Your task to perform on an android device: turn on data saver in the chrome app Image 0: 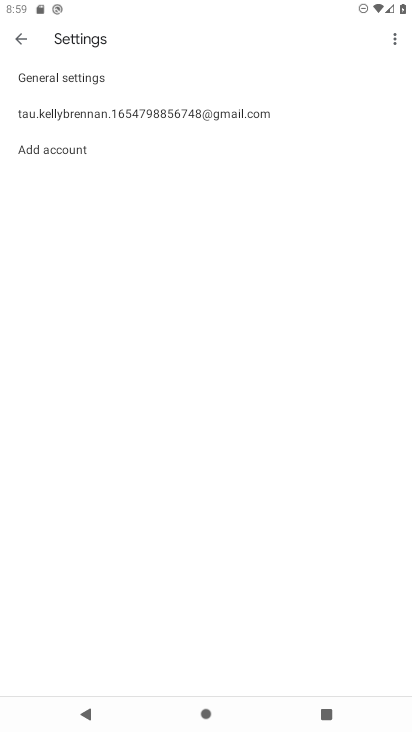
Step 0: press home button
Your task to perform on an android device: turn on data saver in the chrome app Image 1: 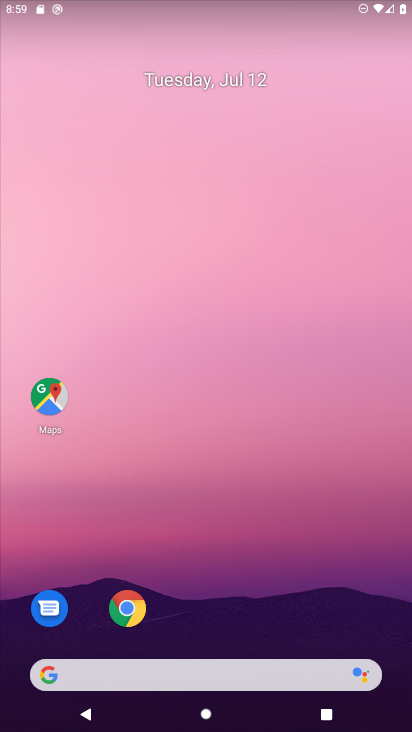
Step 1: click (133, 599)
Your task to perform on an android device: turn on data saver in the chrome app Image 2: 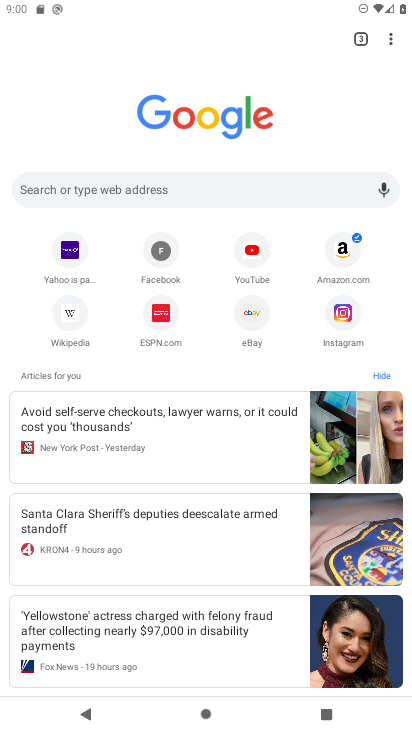
Step 2: click (398, 42)
Your task to perform on an android device: turn on data saver in the chrome app Image 3: 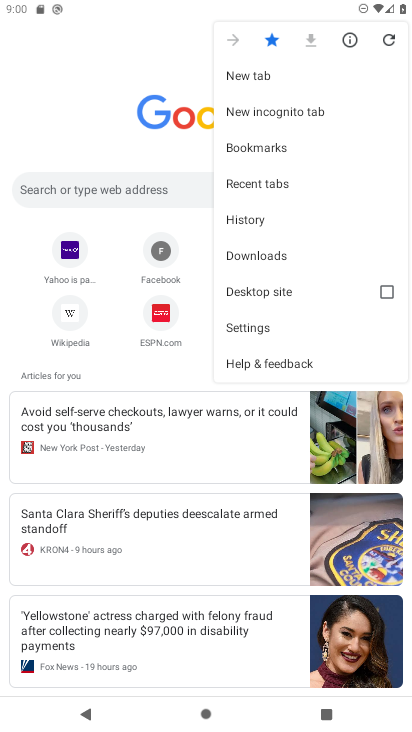
Step 3: click (270, 331)
Your task to perform on an android device: turn on data saver in the chrome app Image 4: 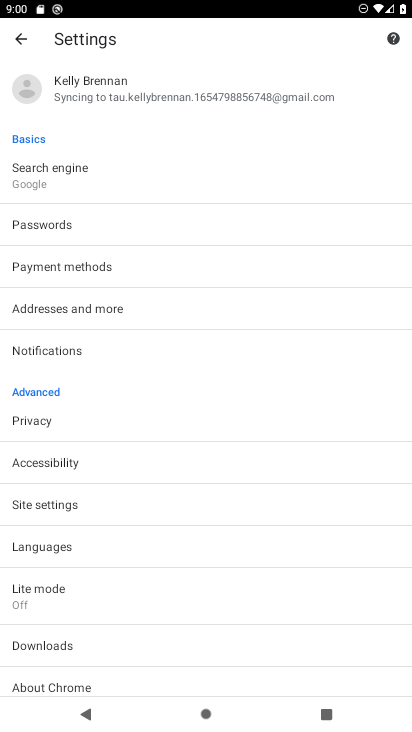
Step 4: click (85, 598)
Your task to perform on an android device: turn on data saver in the chrome app Image 5: 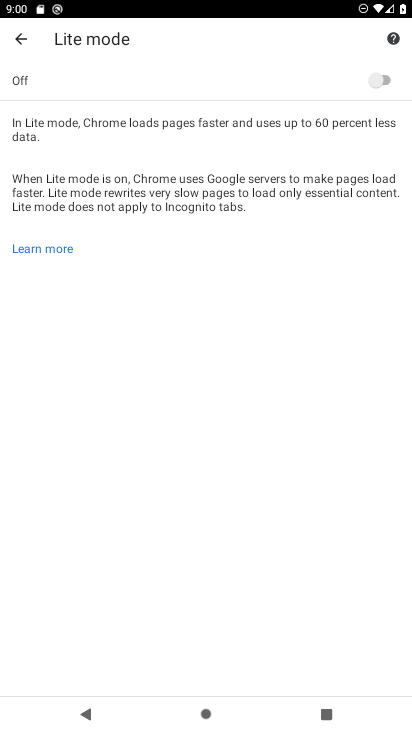
Step 5: click (388, 86)
Your task to perform on an android device: turn on data saver in the chrome app Image 6: 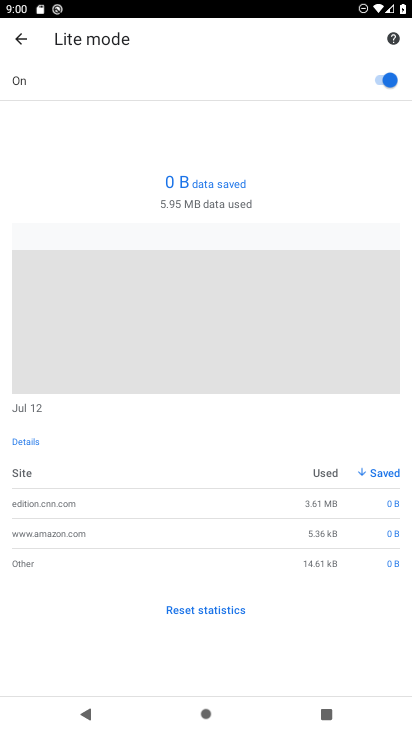
Step 6: task complete